Your task to perform on an android device: Open the map Image 0: 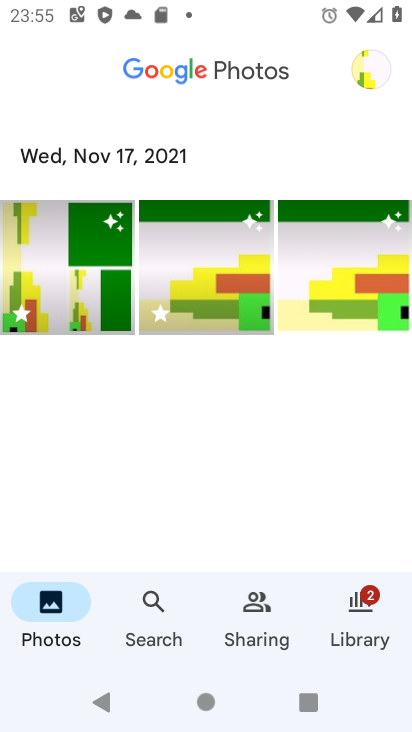
Step 0: press home button
Your task to perform on an android device: Open the map Image 1: 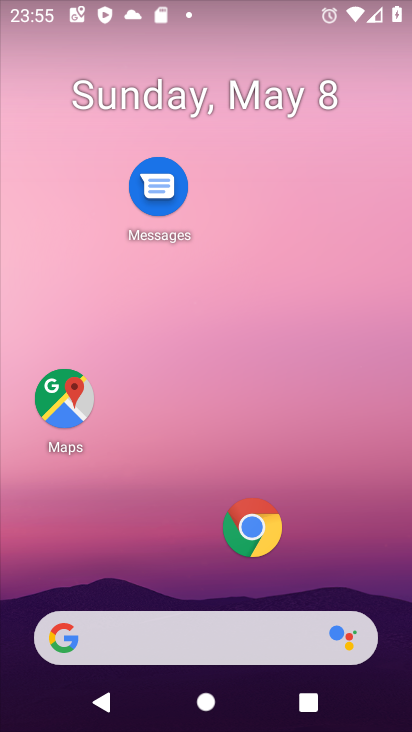
Step 1: click (69, 381)
Your task to perform on an android device: Open the map Image 2: 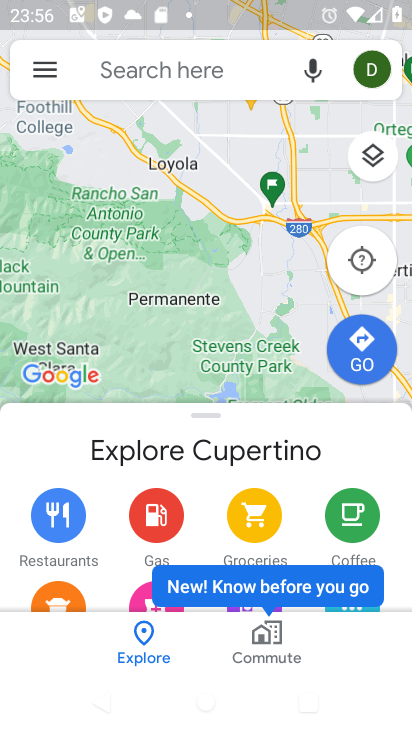
Step 2: task complete